Your task to perform on an android device: turn off smart reply in the gmail app Image 0: 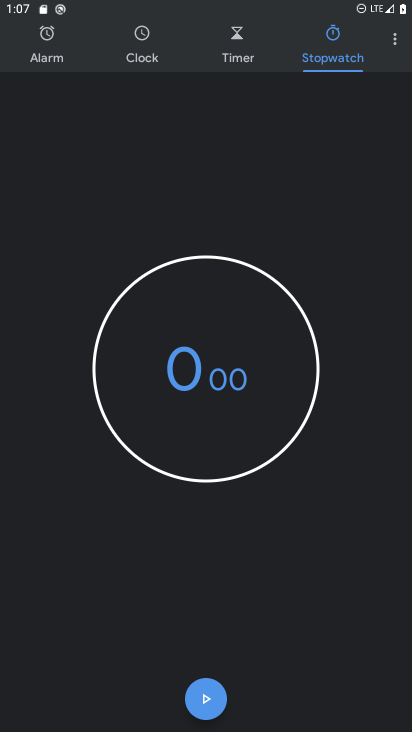
Step 0: press home button
Your task to perform on an android device: turn off smart reply in the gmail app Image 1: 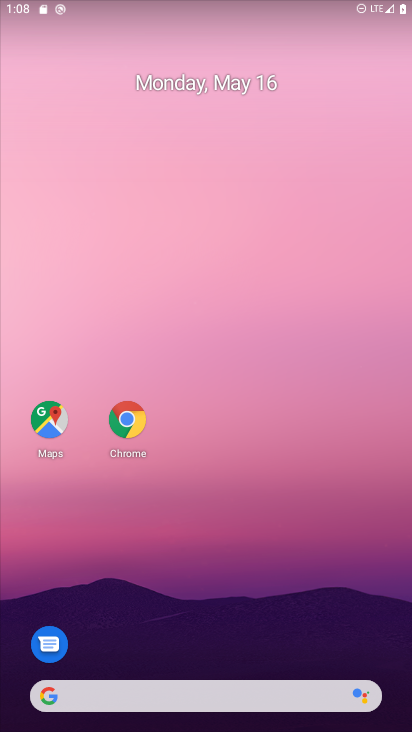
Step 1: drag from (218, 519) to (27, 13)
Your task to perform on an android device: turn off smart reply in the gmail app Image 2: 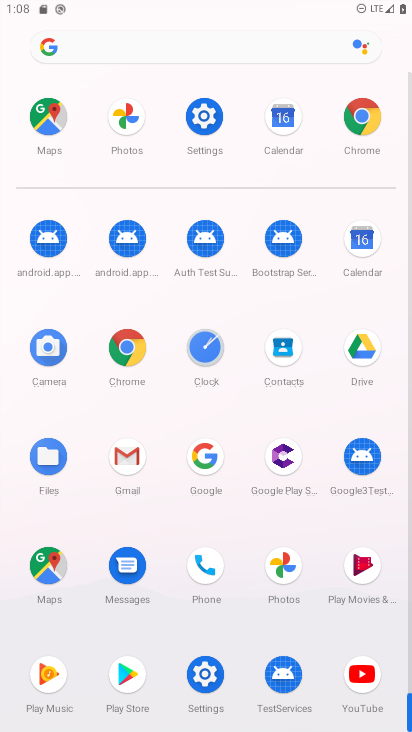
Step 2: click (123, 455)
Your task to perform on an android device: turn off smart reply in the gmail app Image 3: 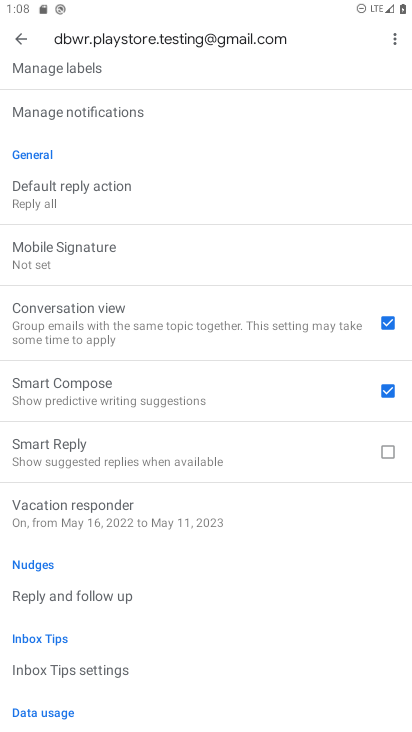
Step 3: task complete